Your task to perform on an android device: Open calendar and show me the first week of next month Image 0: 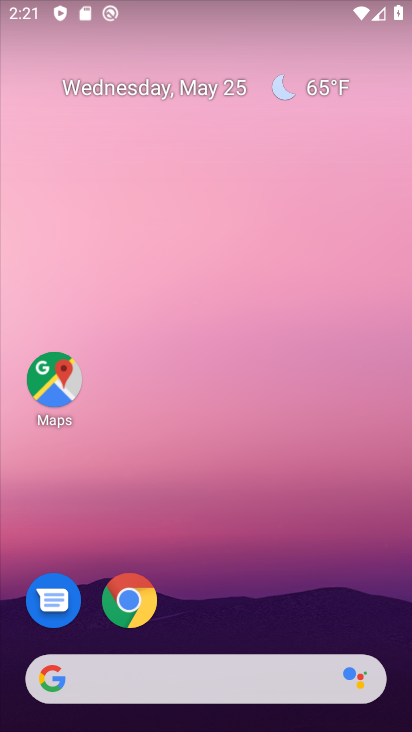
Step 0: drag from (258, 558) to (212, 170)
Your task to perform on an android device: Open calendar and show me the first week of next month Image 1: 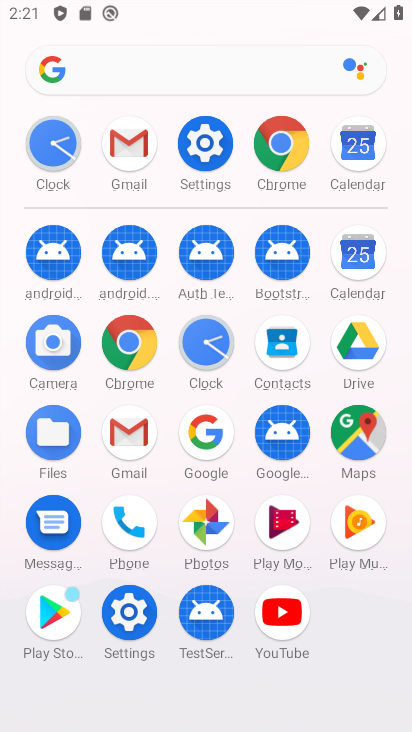
Step 1: click (355, 247)
Your task to perform on an android device: Open calendar and show me the first week of next month Image 2: 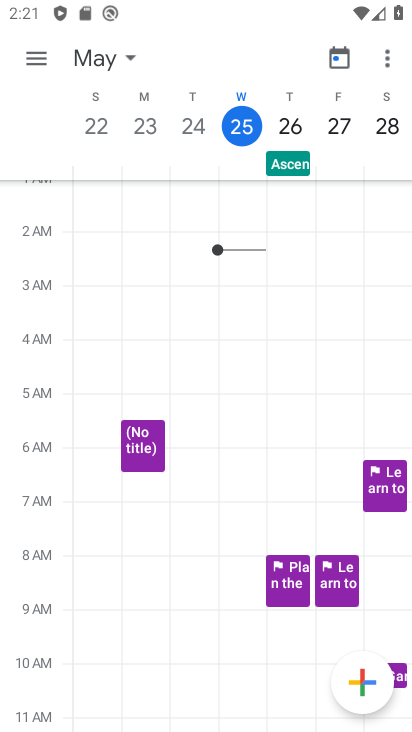
Step 2: click (118, 73)
Your task to perform on an android device: Open calendar and show me the first week of next month Image 3: 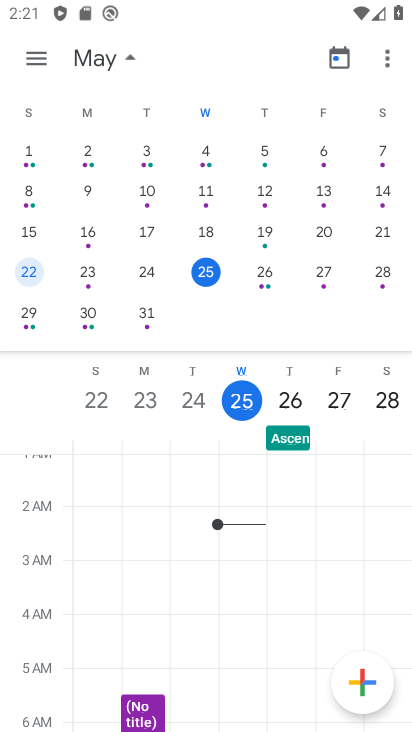
Step 3: drag from (373, 208) to (98, 189)
Your task to perform on an android device: Open calendar and show me the first week of next month Image 4: 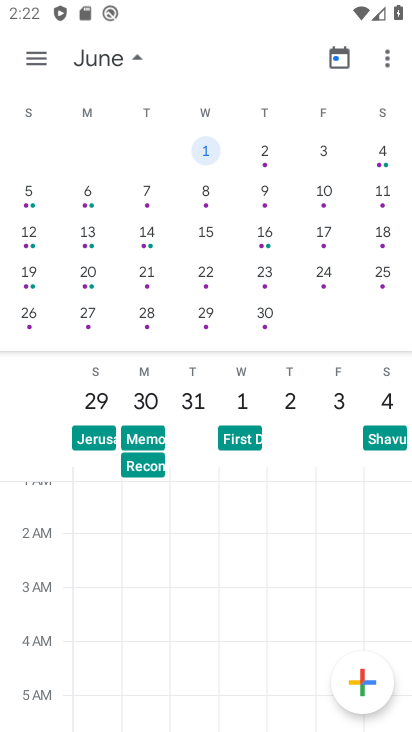
Step 4: click (42, 194)
Your task to perform on an android device: Open calendar and show me the first week of next month Image 5: 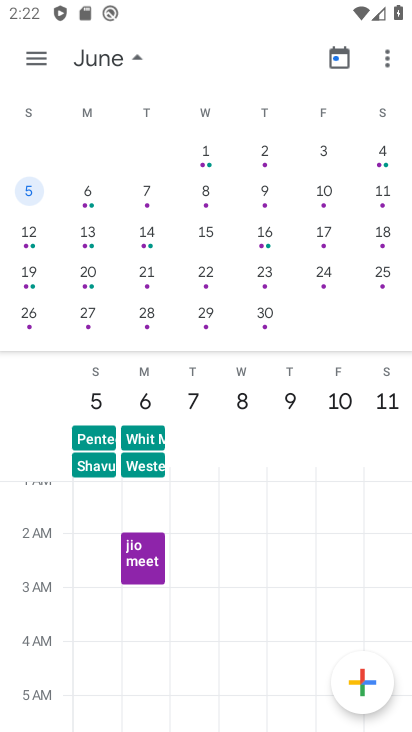
Step 5: click (208, 138)
Your task to perform on an android device: Open calendar and show me the first week of next month Image 6: 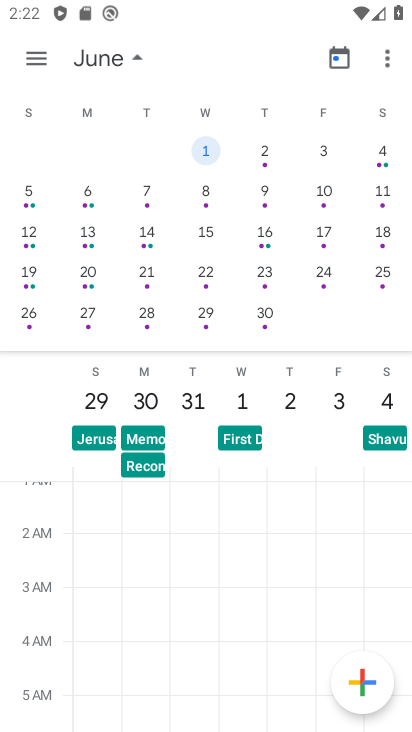
Step 6: task complete